Your task to perform on an android device: View the shopping cart on newegg. Add "rayovac triple a" to the cart on newegg Image 0: 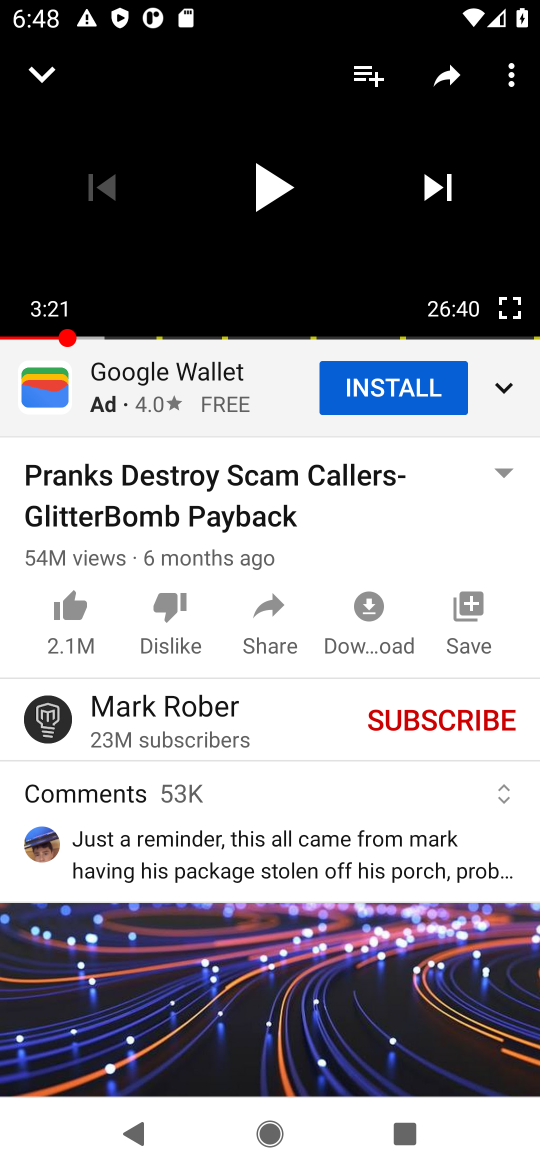
Step 0: press home button
Your task to perform on an android device: View the shopping cart on newegg. Add "rayovac triple a" to the cart on newegg Image 1: 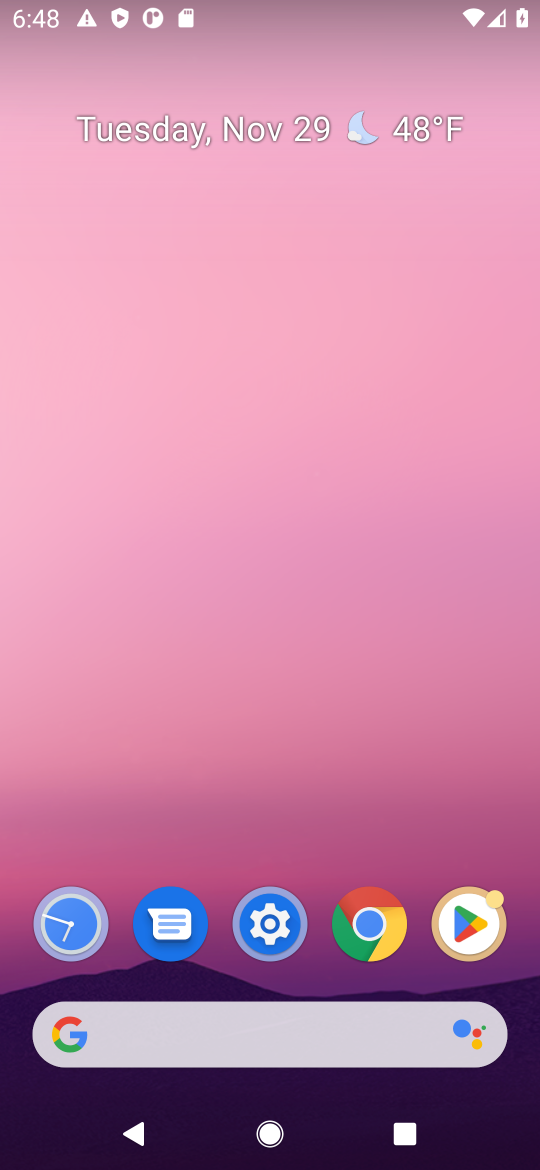
Step 1: click (216, 1015)
Your task to perform on an android device: View the shopping cart on newegg. Add "rayovac triple a" to the cart on newegg Image 2: 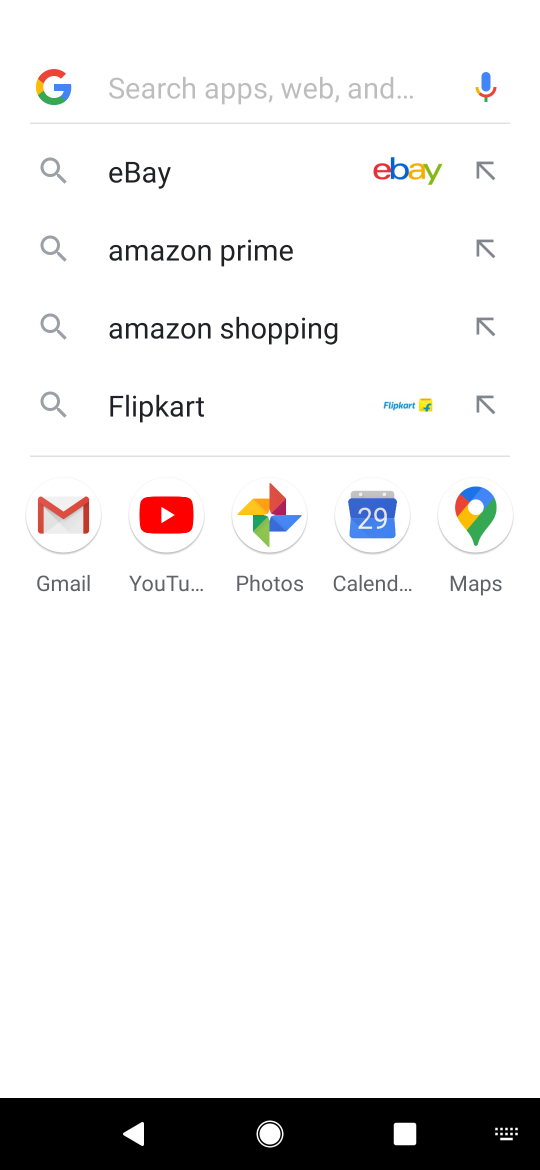
Step 2: type "newegg"
Your task to perform on an android device: View the shopping cart on newegg. Add "rayovac triple a" to the cart on newegg Image 3: 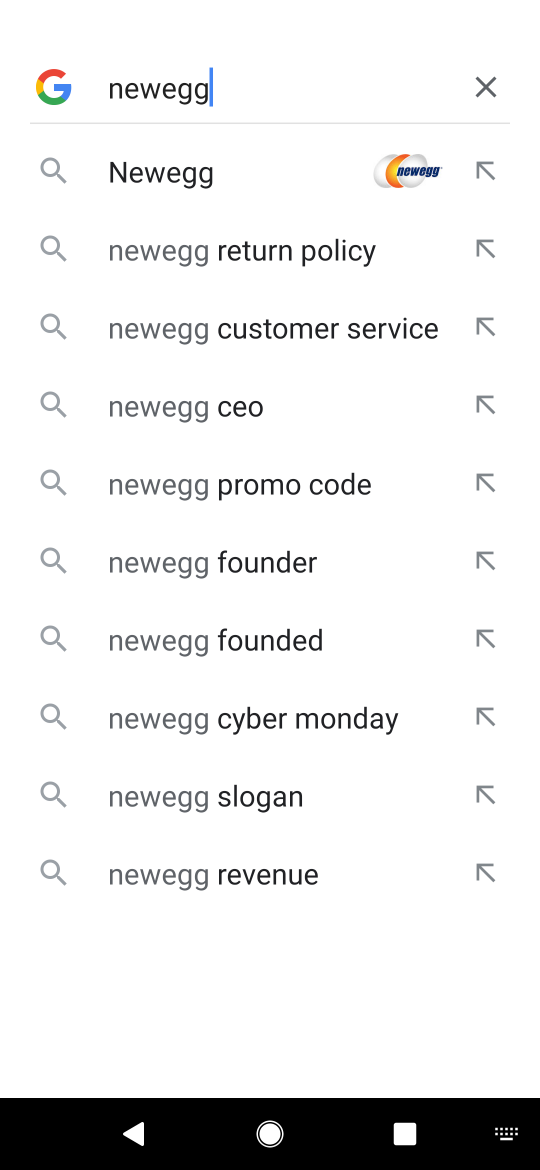
Step 3: click (173, 165)
Your task to perform on an android device: View the shopping cart on newegg. Add "rayovac triple a" to the cart on newegg Image 4: 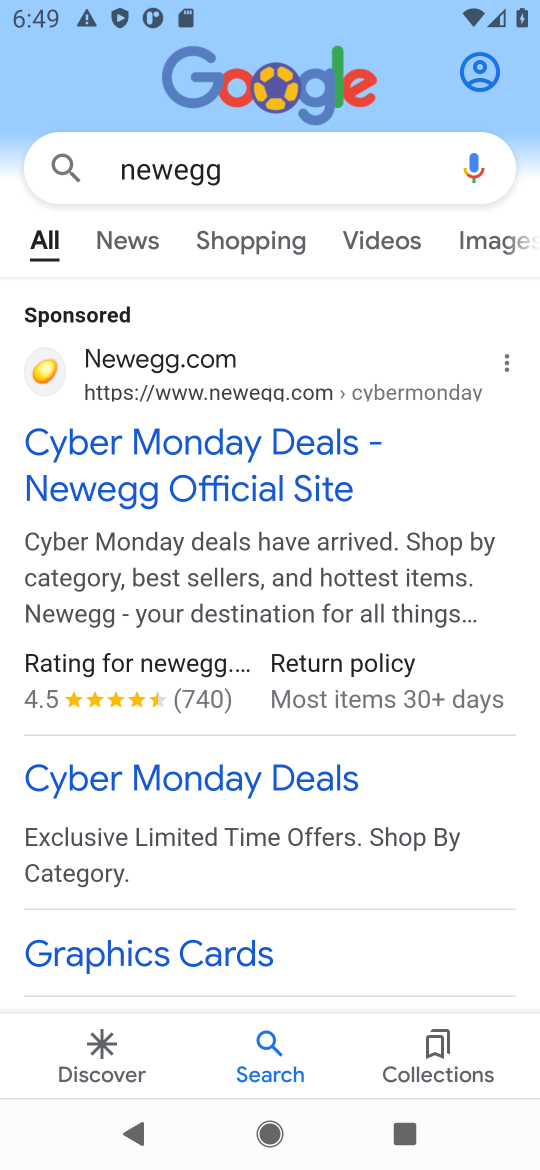
Step 4: click (156, 488)
Your task to perform on an android device: View the shopping cart on newegg. Add "rayovac triple a" to the cart on newegg Image 5: 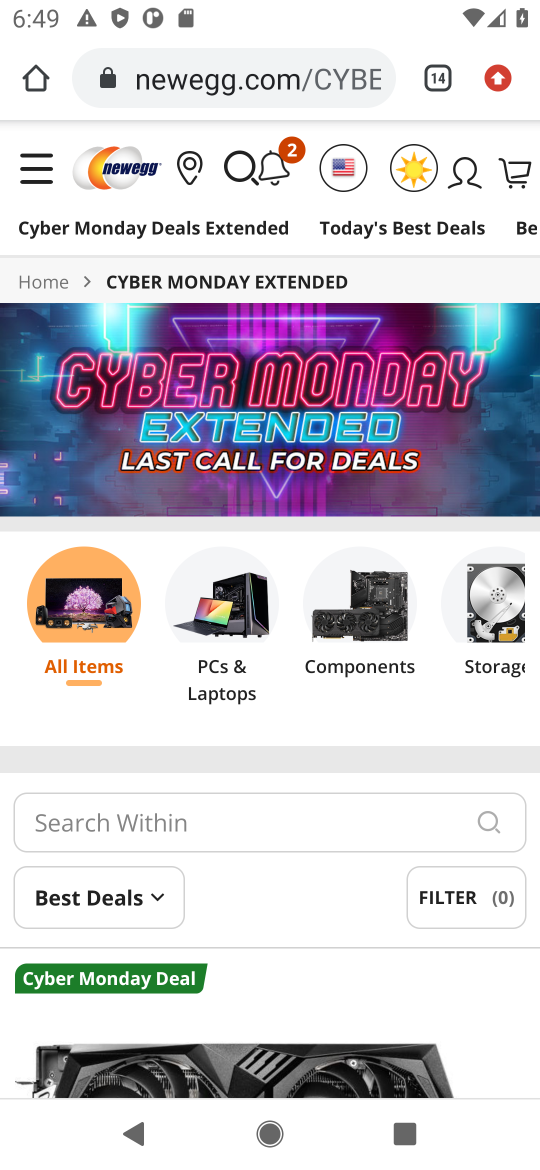
Step 5: click (252, 166)
Your task to perform on an android device: View the shopping cart on newegg. Add "rayovac triple a" to the cart on newegg Image 6: 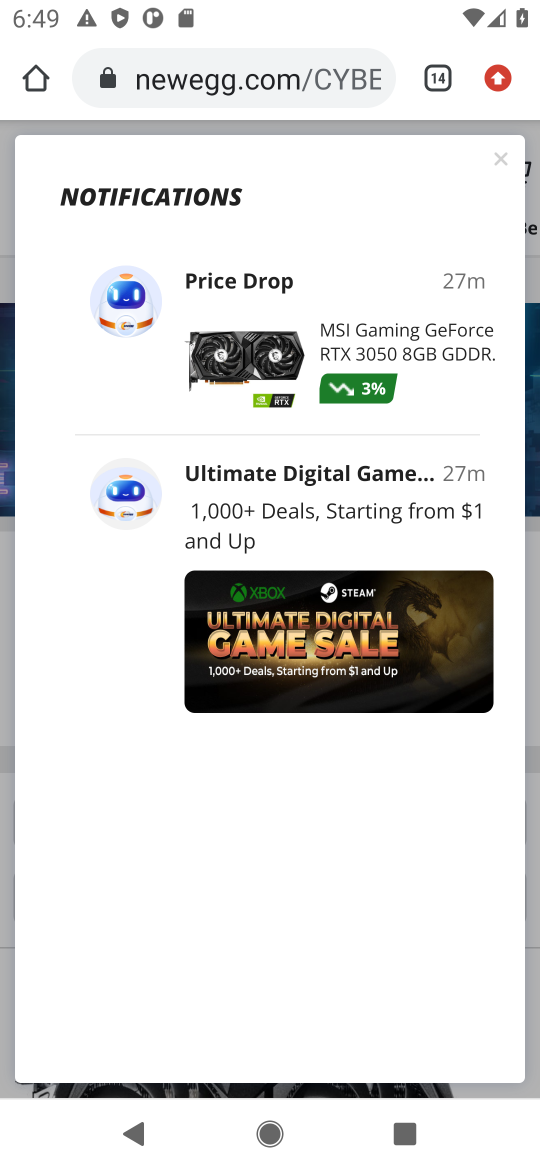
Step 6: task complete